Your task to perform on an android device: check out phone information Image 0: 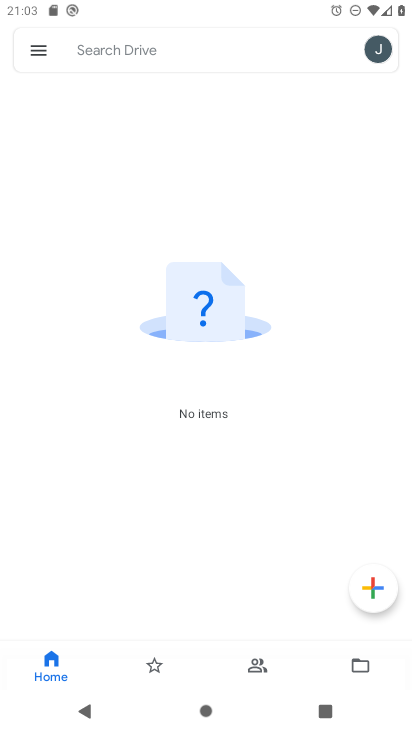
Step 0: press home button
Your task to perform on an android device: check out phone information Image 1: 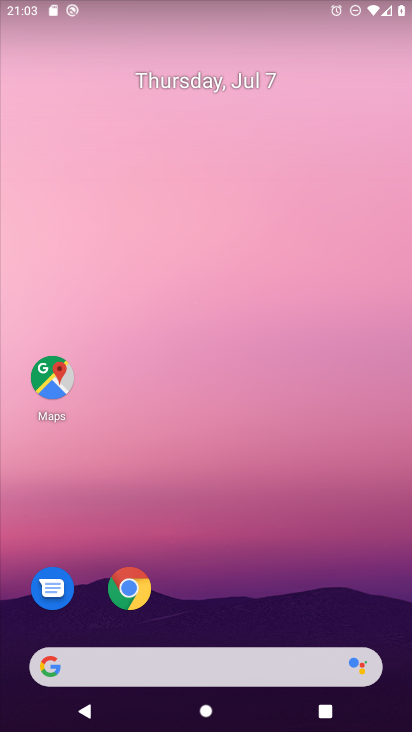
Step 1: drag from (253, 661) to (251, 225)
Your task to perform on an android device: check out phone information Image 2: 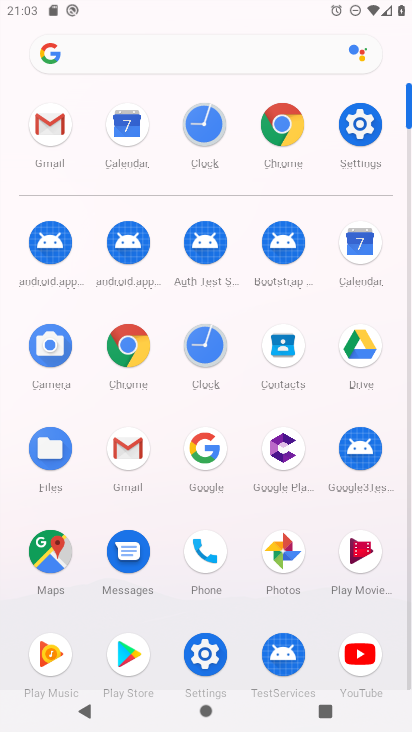
Step 2: click (367, 111)
Your task to perform on an android device: check out phone information Image 3: 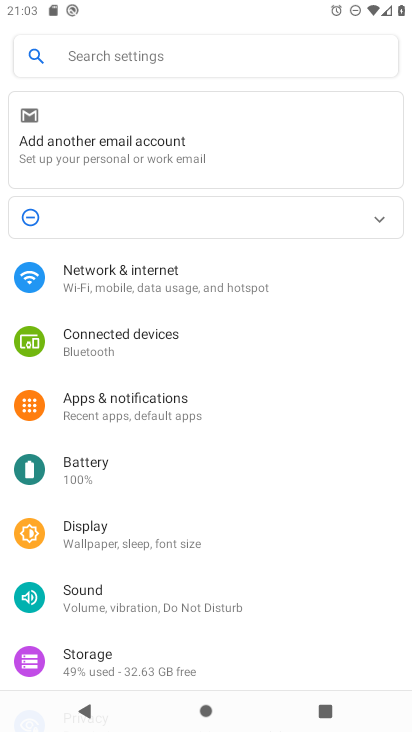
Step 3: drag from (198, 633) to (236, 265)
Your task to perform on an android device: check out phone information Image 4: 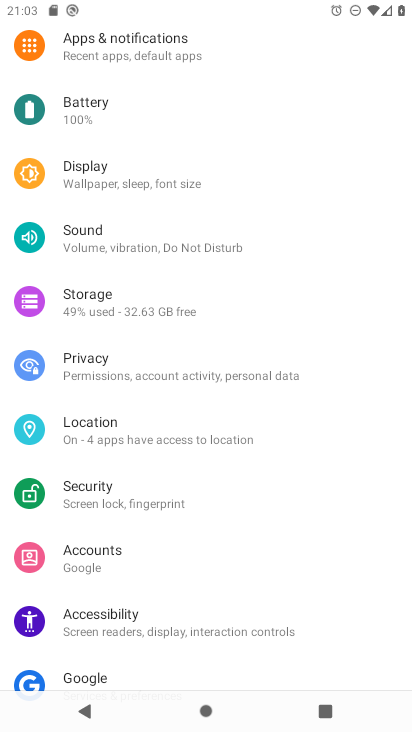
Step 4: drag from (219, 541) to (215, 227)
Your task to perform on an android device: check out phone information Image 5: 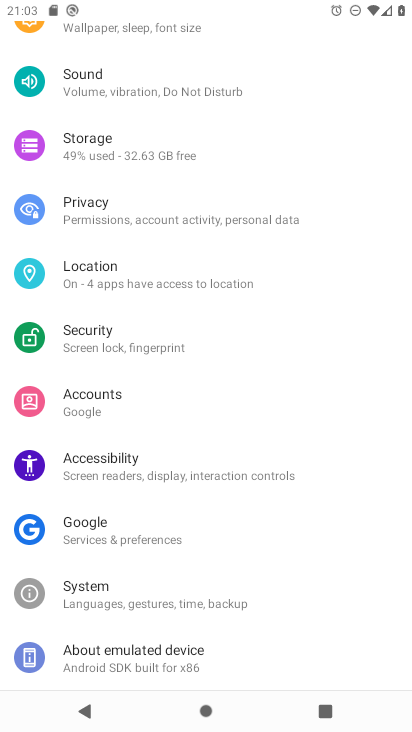
Step 5: click (188, 645)
Your task to perform on an android device: check out phone information Image 6: 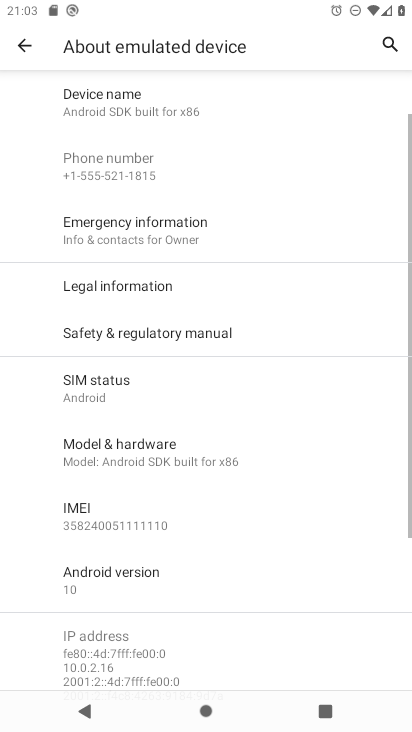
Step 6: task complete